Your task to perform on an android device: Find coffee shops on Maps Image 0: 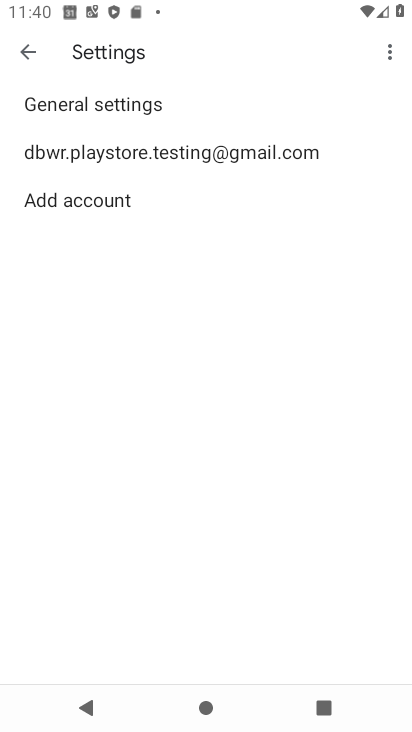
Step 0: press home button
Your task to perform on an android device: Find coffee shops on Maps Image 1: 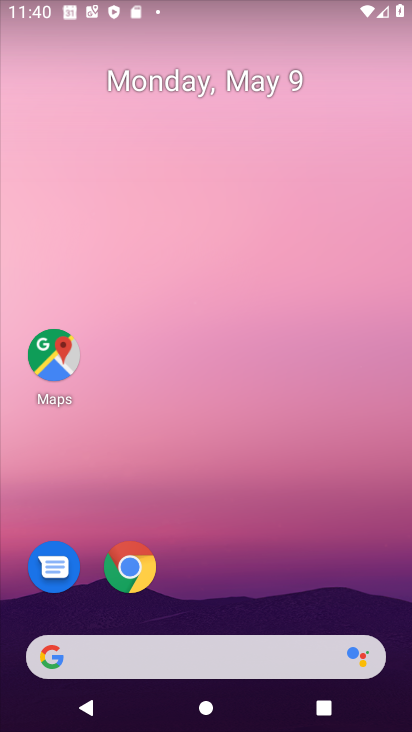
Step 1: click (53, 352)
Your task to perform on an android device: Find coffee shops on Maps Image 2: 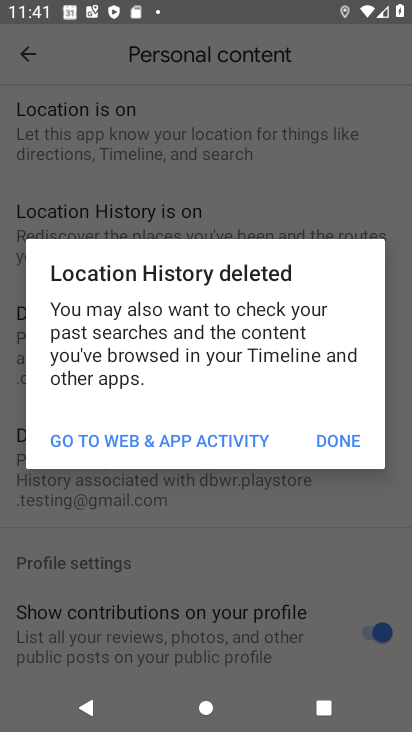
Step 2: click (343, 445)
Your task to perform on an android device: Find coffee shops on Maps Image 3: 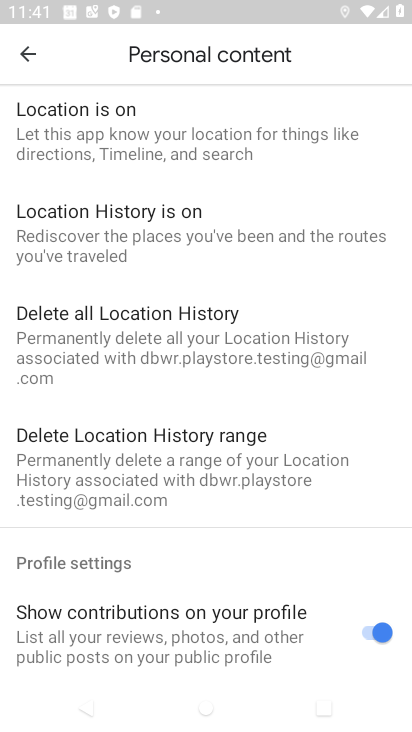
Step 3: click (27, 68)
Your task to perform on an android device: Find coffee shops on Maps Image 4: 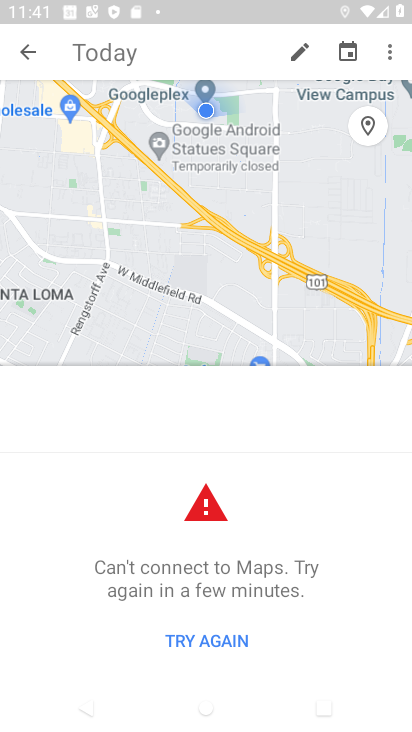
Step 4: click (27, 68)
Your task to perform on an android device: Find coffee shops on Maps Image 5: 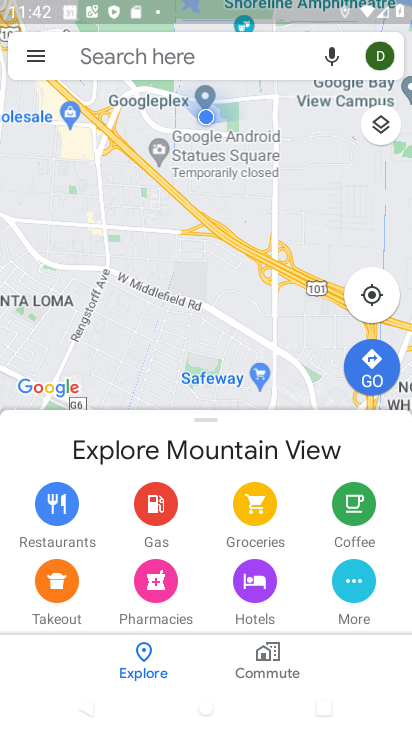
Step 5: click (128, 49)
Your task to perform on an android device: Find coffee shops on Maps Image 6: 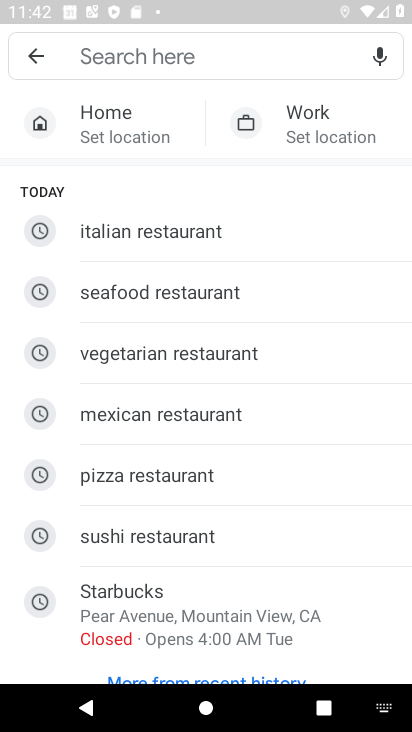
Step 6: type "coffee shops"
Your task to perform on an android device: Find coffee shops on Maps Image 7: 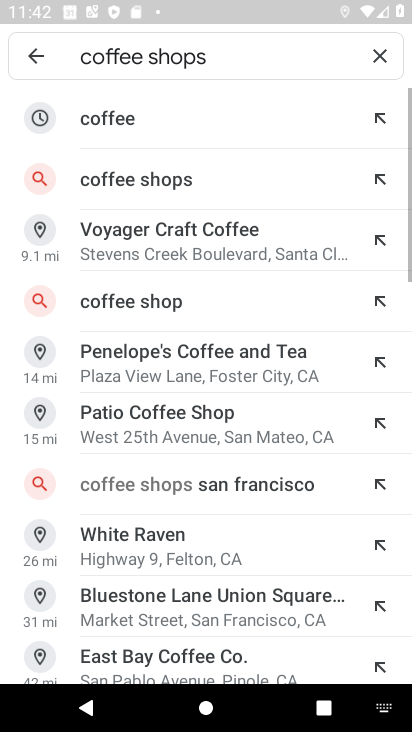
Step 7: click (135, 181)
Your task to perform on an android device: Find coffee shops on Maps Image 8: 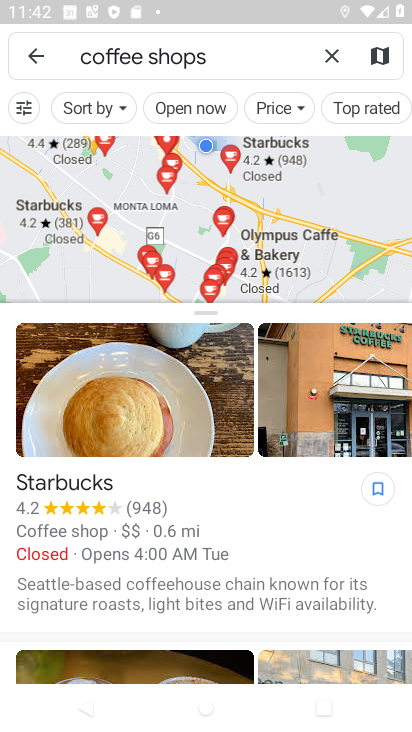
Step 8: task complete